Your task to perform on an android device: Clear all items from cart on costco.com. Search for "sony triple a" on costco.com, select the first entry, and add it to the cart. Image 0: 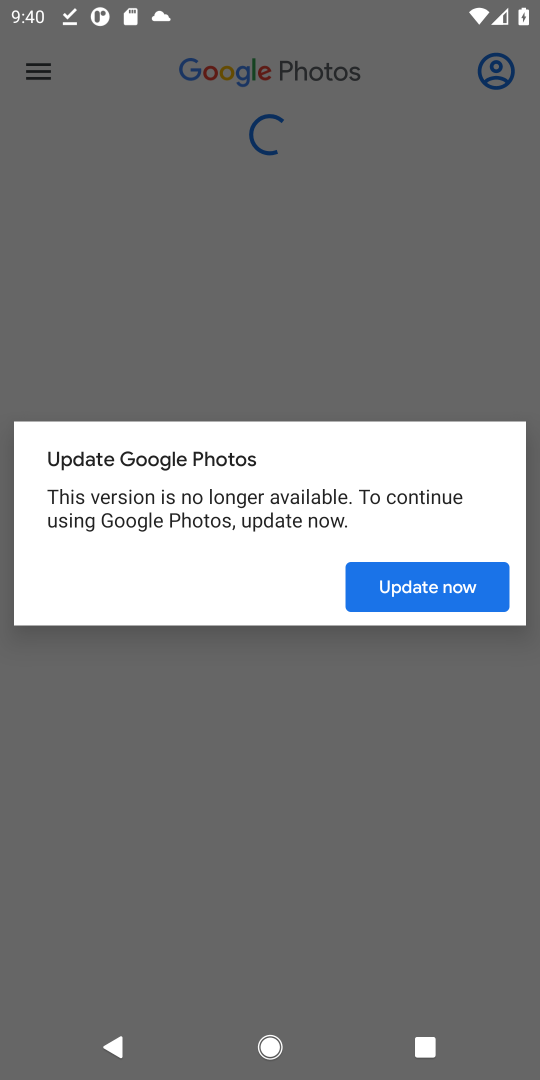
Step 0: press home button
Your task to perform on an android device: Clear all items from cart on costco.com. Search for "sony triple a" on costco.com, select the first entry, and add it to the cart. Image 1: 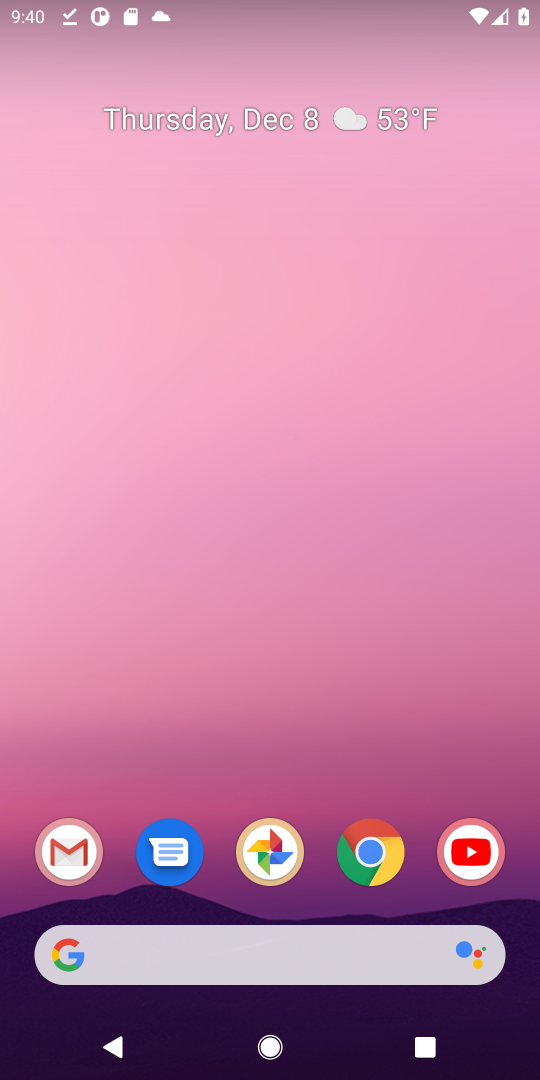
Step 1: click (196, 942)
Your task to perform on an android device: Clear all items from cart on costco.com. Search for "sony triple a" on costco.com, select the first entry, and add it to the cart. Image 2: 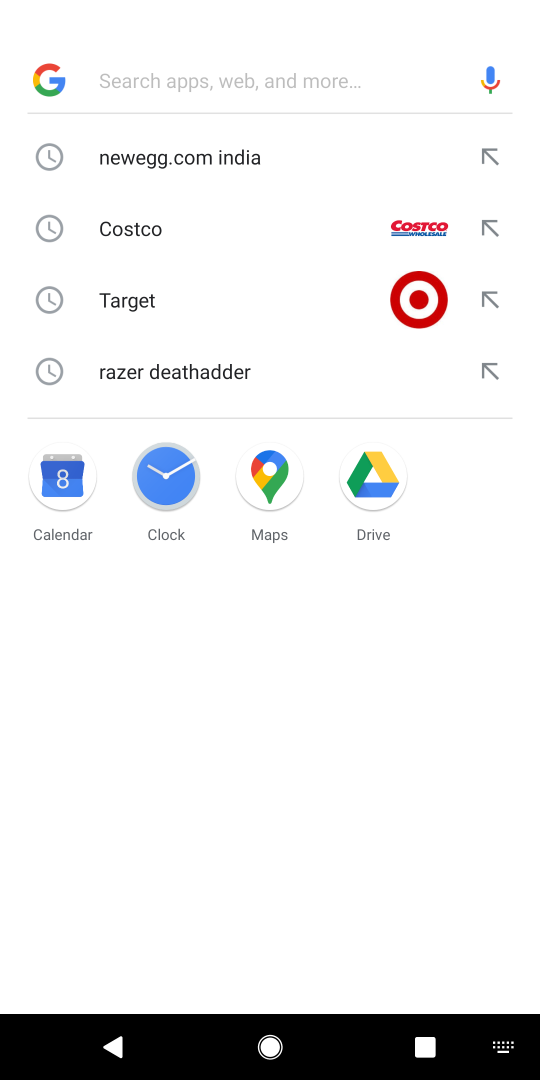
Step 2: type "costco"
Your task to perform on an android device: Clear all items from cart on costco.com. Search for "sony triple a" on costco.com, select the first entry, and add it to the cart. Image 3: 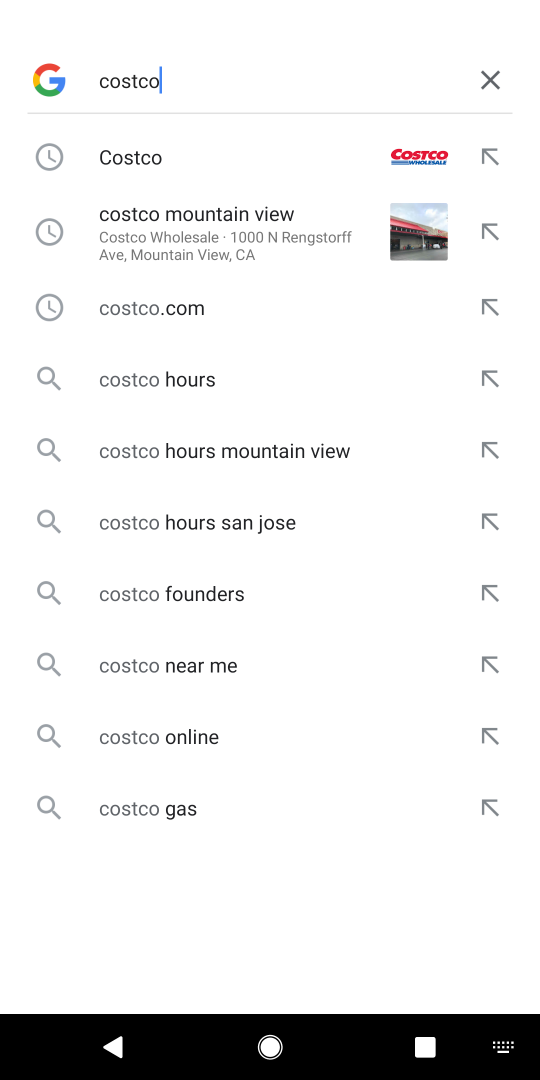
Step 3: click (121, 226)
Your task to perform on an android device: Clear all items from cart on costco.com. Search for "sony triple a" on costco.com, select the first entry, and add it to the cart. Image 4: 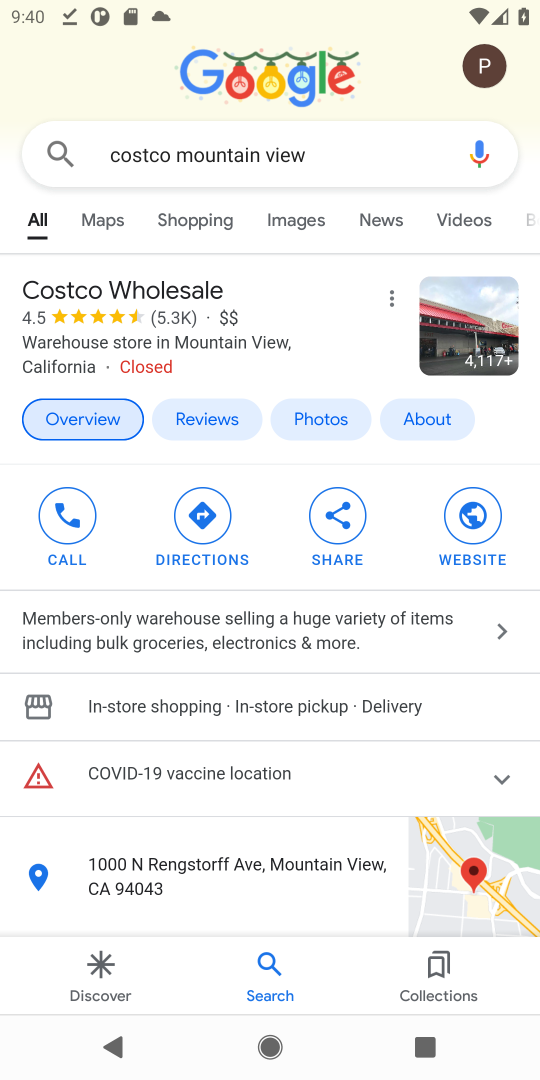
Step 4: click (477, 544)
Your task to perform on an android device: Clear all items from cart on costco.com. Search for "sony triple a" on costco.com, select the first entry, and add it to the cart. Image 5: 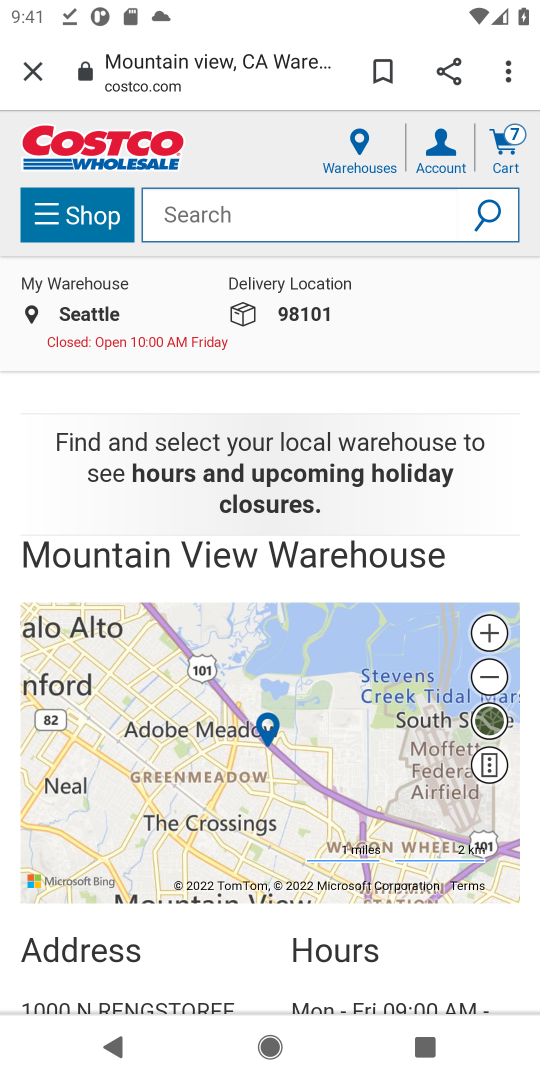
Step 5: click (226, 227)
Your task to perform on an android device: Clear all items from cart on costco.com. Search for "sony triple a" on costco.com, select the first entry, and add it to the cart. Image 6: 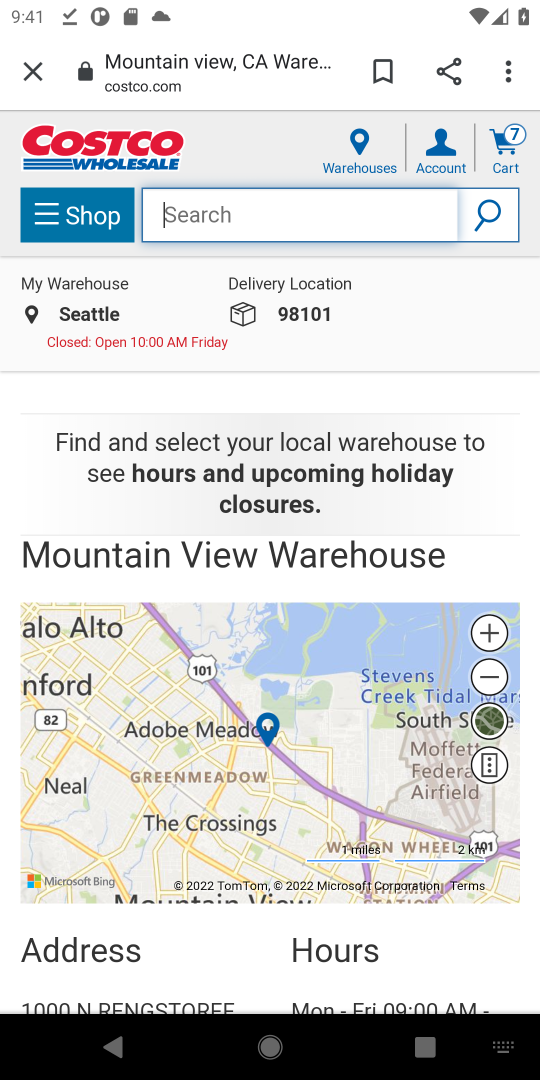
Step 6: type "sony triple a"
Your task to perform on an android device: Clear all items from cart on costco.com. Search for "sony triple a" on costco.com, select the first entry, and add it to the cart. Image 7: 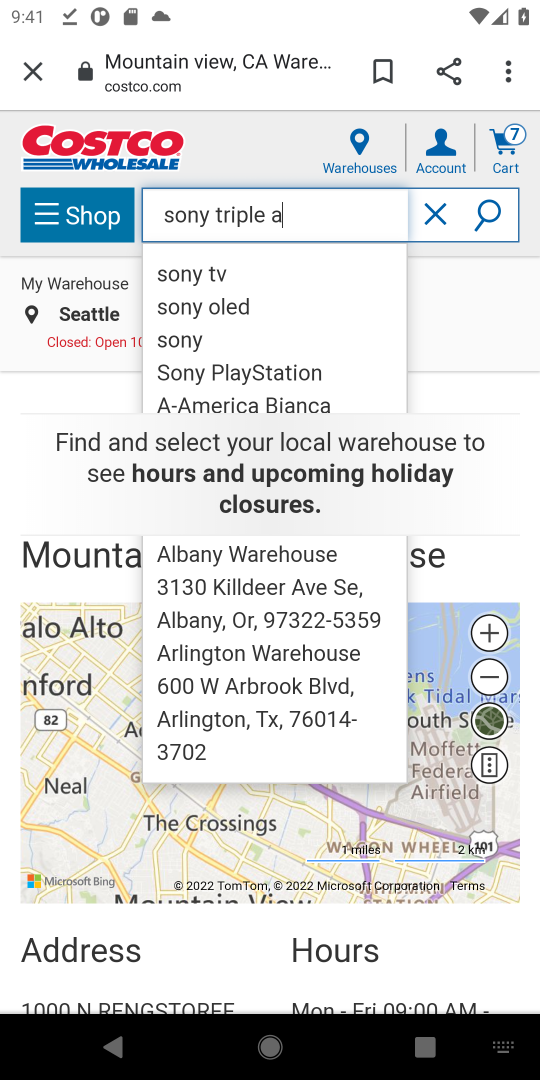
Step 7: click (477, 230)
Your task to perform on an android device: Clear all items from cart on costco.com. Search for "sony triple a" on costco.com, select the first entry, and add it to the cart. Image 8: 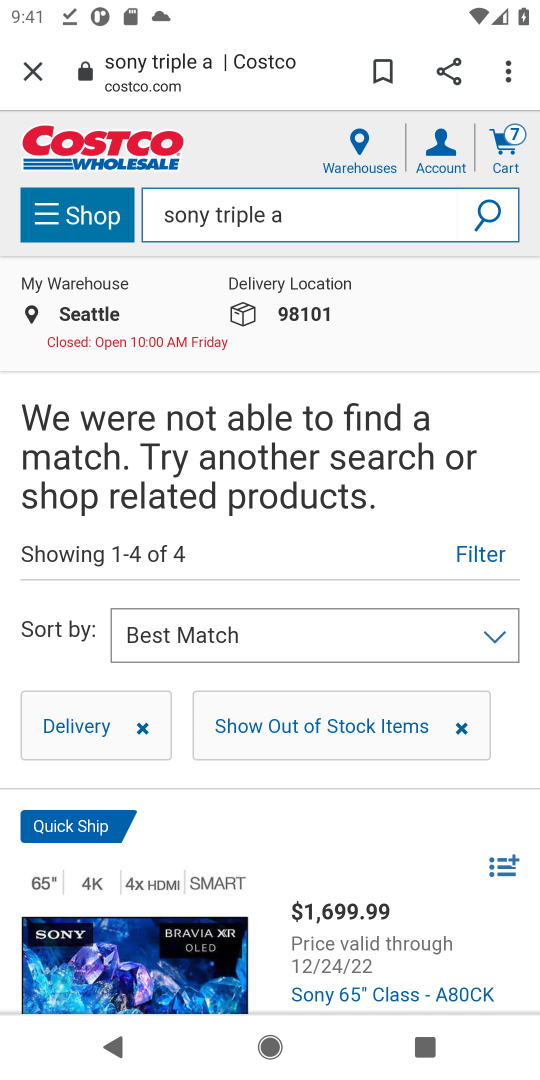
Step 8: task complete